Your task to perform on an android device: find photos in the google photos app Image 0: 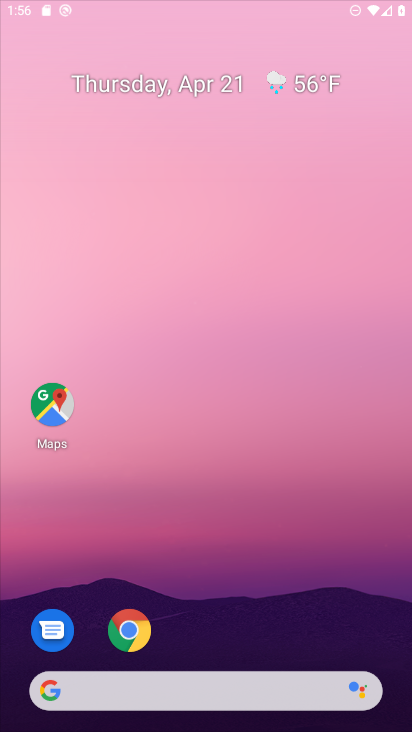
Step 0: drag from (226, 0) to (335, 3)
Your task to perform on an android device: find photos in the google photos app Image 1: 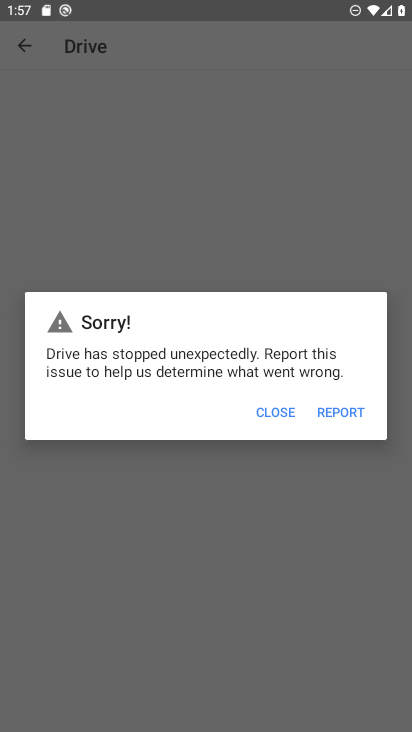
Step 1: press home button
Your task to perform on an android device: find photos in the google photos app Image 2: 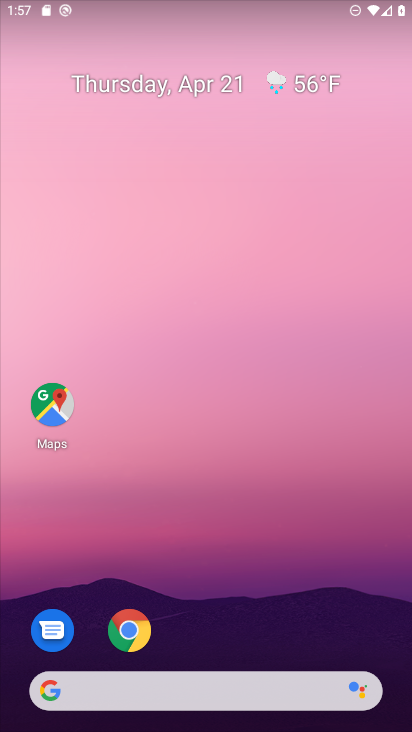
Step 2: drag from (149, 674) to (131, 14)
Your task to perform on an android device: find photos in the google photos app Image 3: 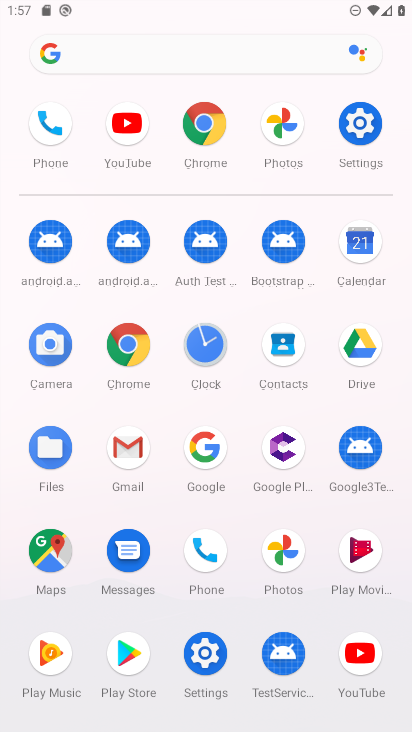
Step 3: click (284, 116)
Your task to perform on an android device: find photos in the google photos app Image 4: 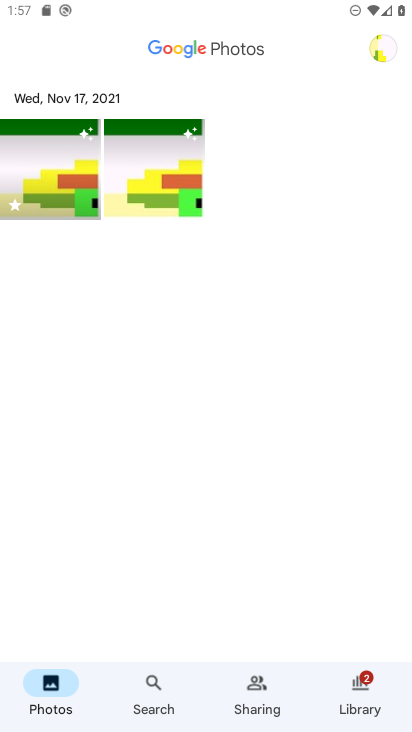
Step 4: click (44, 685)
Your task to perform on an android device: find photos in the google photos app Image 5: 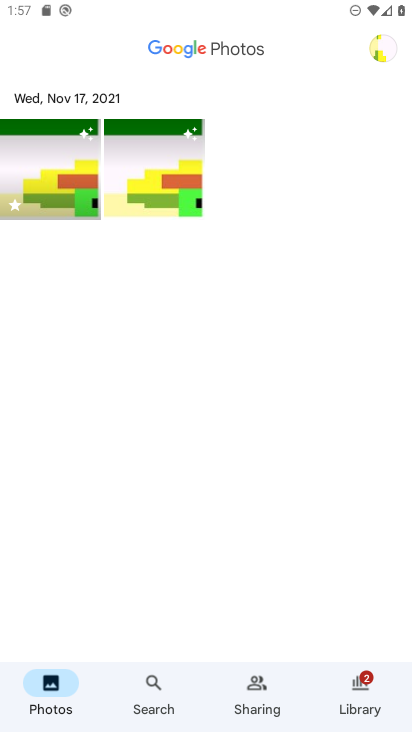
Step 5: task complete